Your task to perform on an android device: Open the calendar and show me this week's events Image 0: 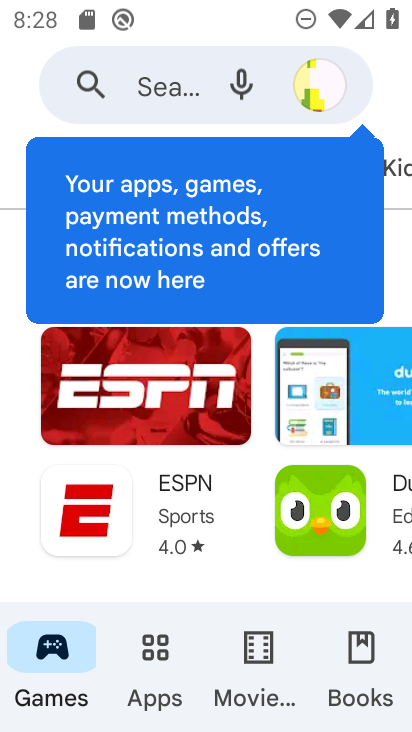
Step 0: press back button
Your task to perform on an android device: Open the calendar and show me this week's events Image 1: 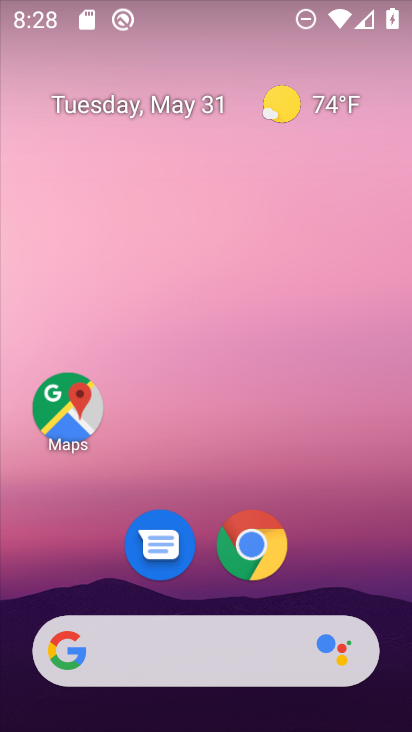
Step 1: drag from (327, 566) to (273, 25)
Your task to perform on an android device: Open the calendar and show me this week's events Image 2: 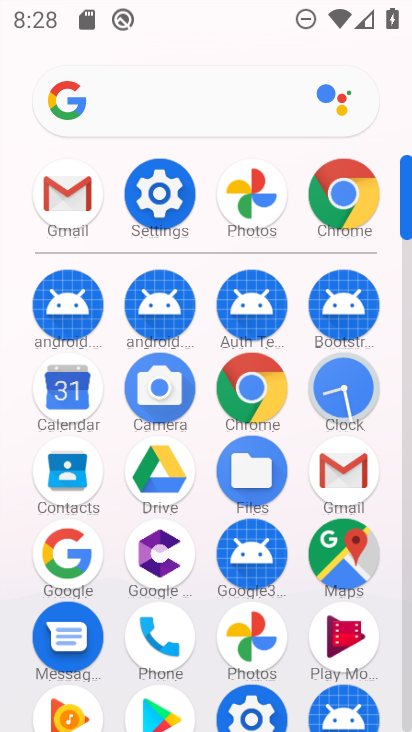
Step 2: drag from (12, 618) to (11, 206)
Your task to perform on an android device: Open the calendar and show me this week's events Image 3: 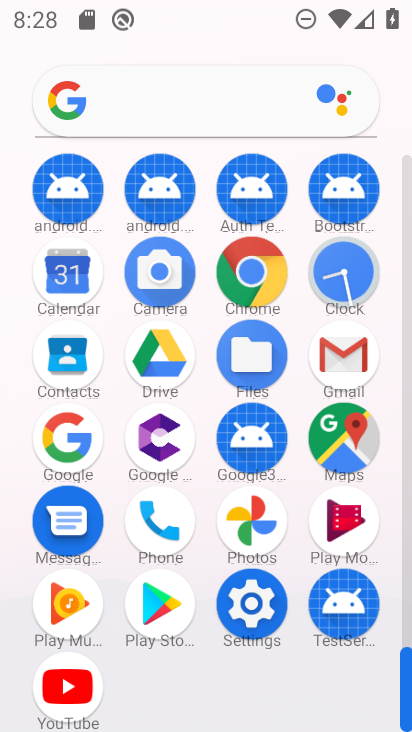
Step 3: drag from (8, 580) to (21, 291)
Your task to perform on an android device: Open the calendar and show me this week's events Image 4: 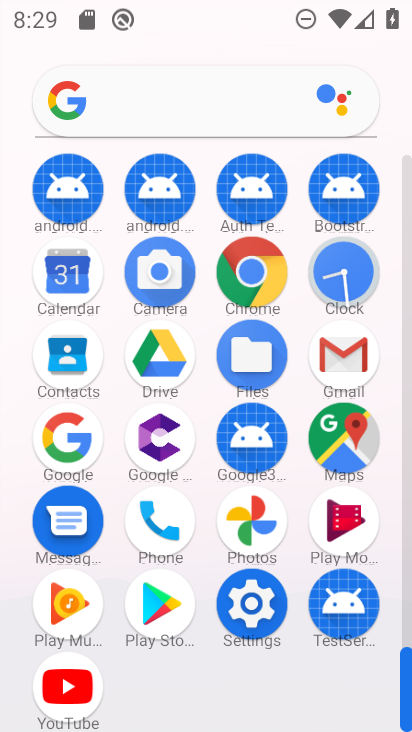
Step 4: click (62, 265)
Your task to perform on an android device: Open the calendar and show me this week's events Image 5: 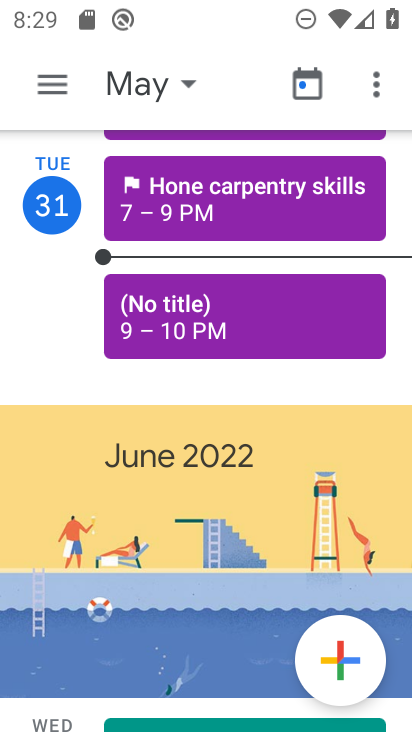
Step 5: click (311, 87)
Your task to perform on an android device: Open the calendar and show me this week's events Image 6: 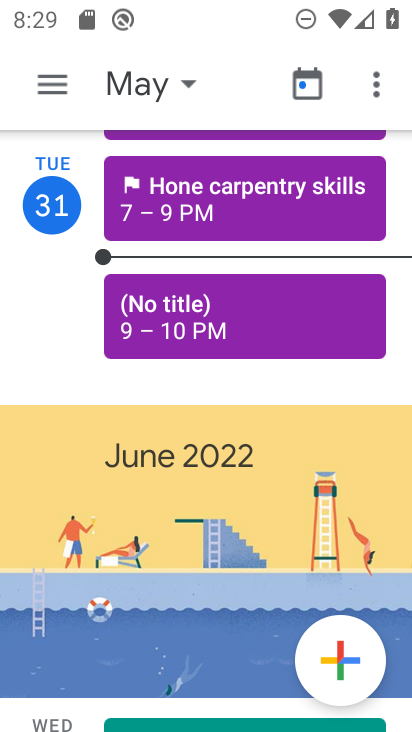
Step 6: click (45, 84)
Your task to perform on an android device: Open the calendar and show me this week's events Image 7: 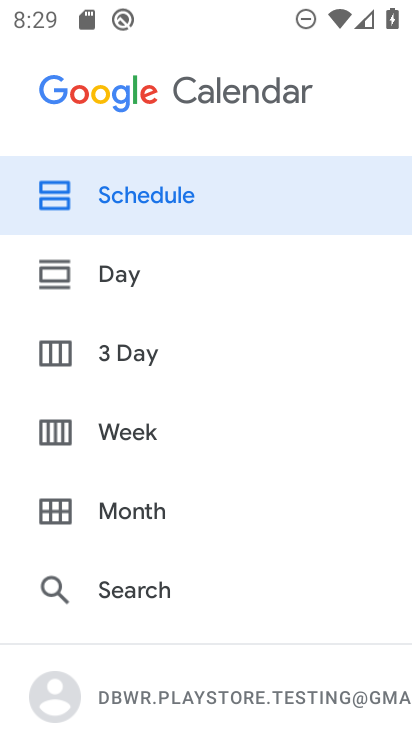
Step 7: click (153, 423)
Your task to perform on an android device: Open the calendar and show me this week's events Image 8: 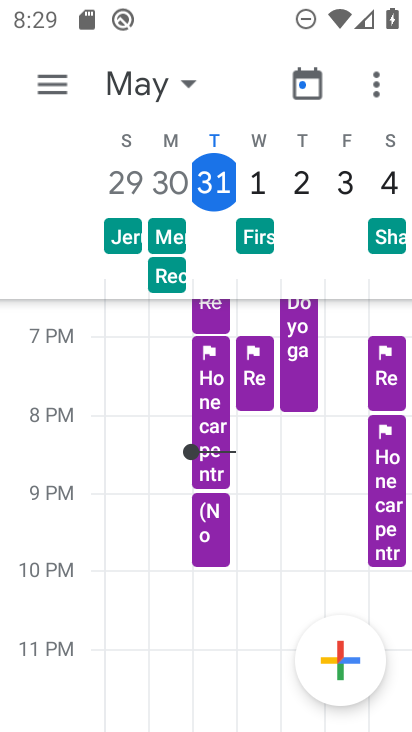
Step 8: task complete